Your task to perform on an android device: turn smart compose on in the gmail app Image 0: 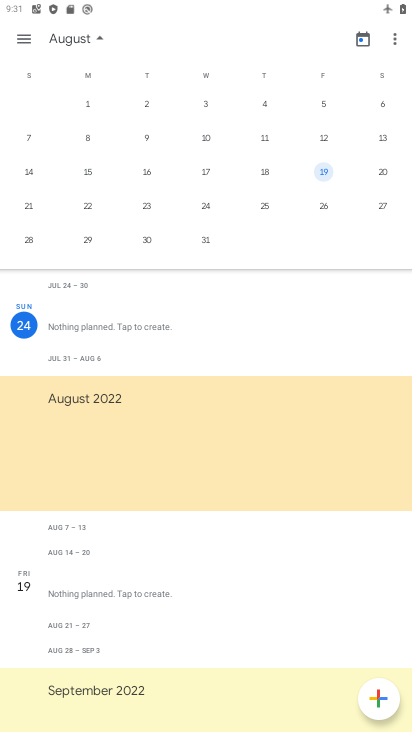
Step 0: press home button
Your task to perform on an android device: turn smart compose on in the gmail app Image 1: 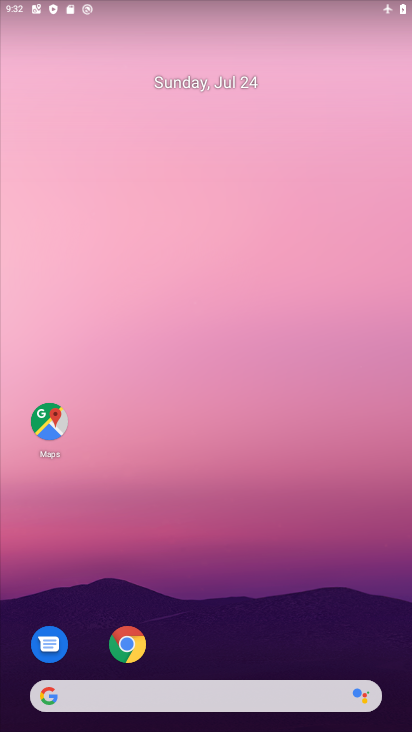
Step 1: drag from (299, 637) to (341, 6)
Your task to perform on an android device: turn smart compose on in the gmail app Image 2: 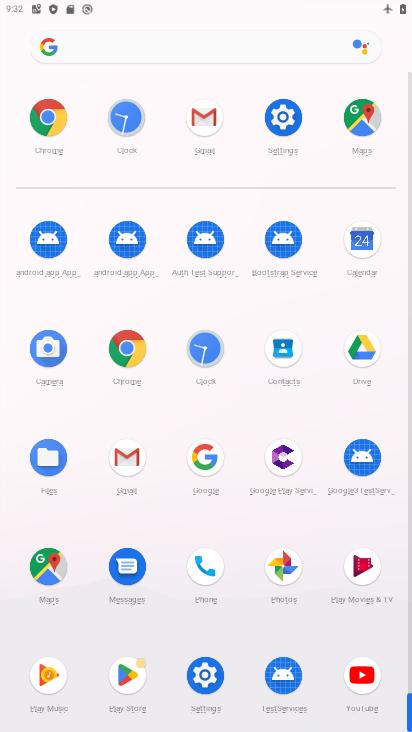
Step 2: click (115, 448)
Your task to perform on an android device: turn smart compose on in the gmail app Image 3: 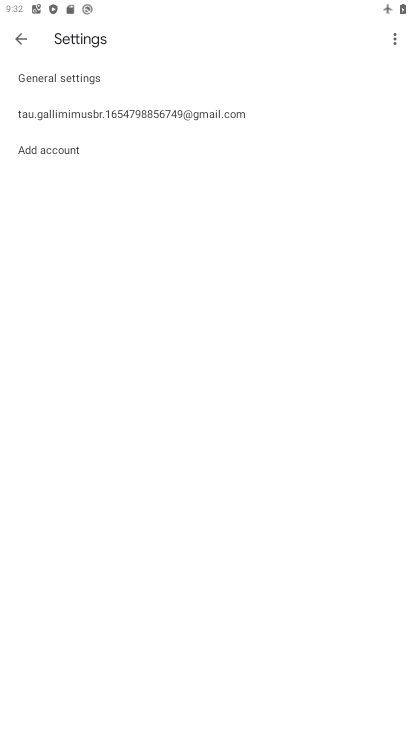
Step 3: click (141, 120)
Your task to perform on an android device: turn smart compose on in the gmail app Image 4: 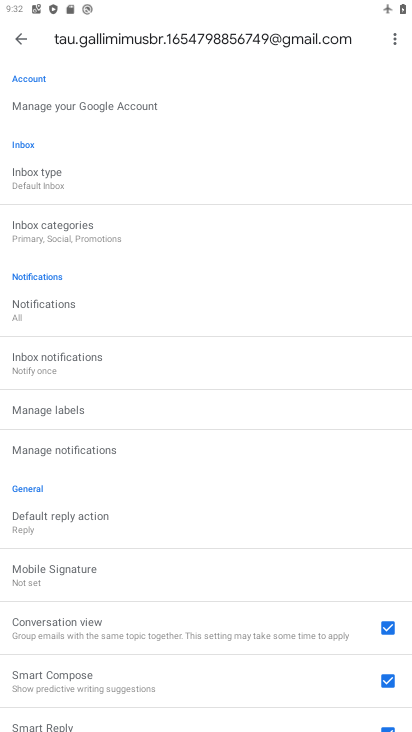
Step 4: task complete